Your task to perform on an android device: delete the emails in spam in the gmail app Image 0: 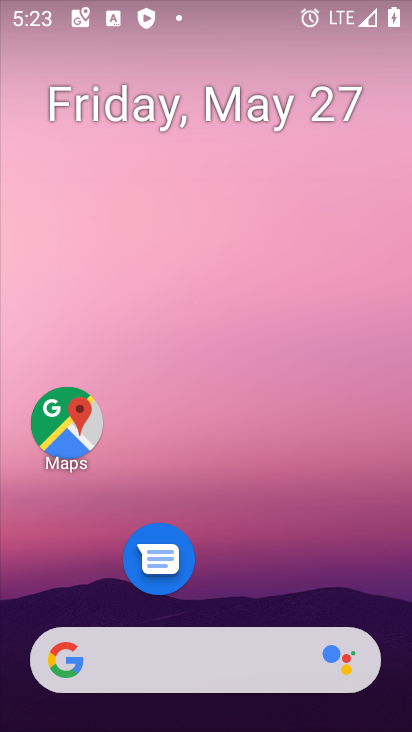
Step 0: drag from (303, 664) to (334, 81)
Your task to perform on an android device: delete the emails in spam in the gmail app Image 1: 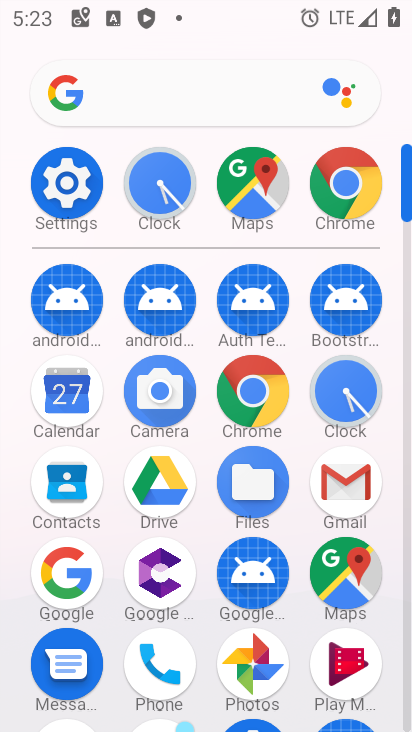
Step 1: click (338, 479)
Your task to perform on an android device: delete the emails in spam in the gmail app Image 2: 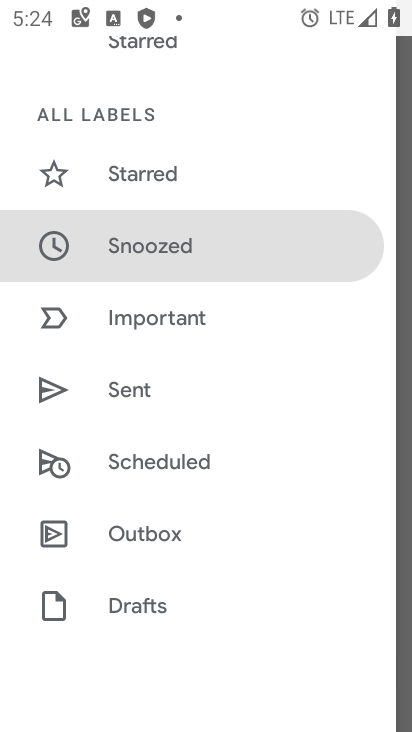
Step 2: task complete